Your task to perform on an android device: see creations saved in the google photos Image 0: 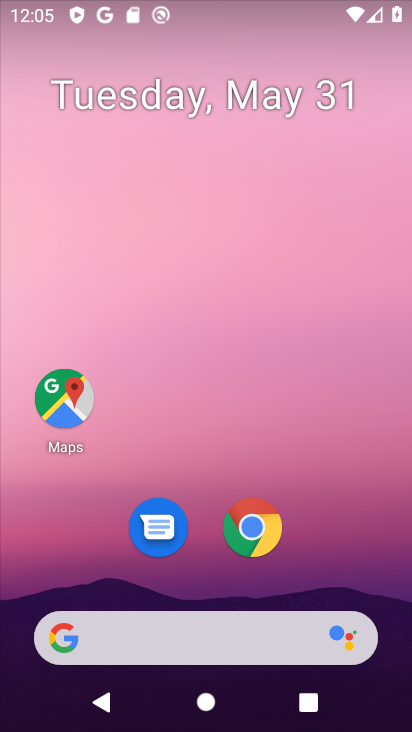
Step 0: click (209, 174)
Your task to perform on an android device: see creations saved in the google photos Image 1: 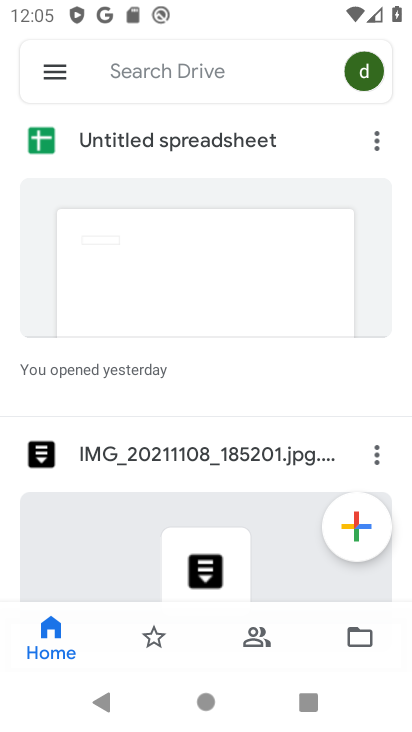
Step 1: press back button
Your task to perform on an android device: see creations saved in the google photos Image 2: 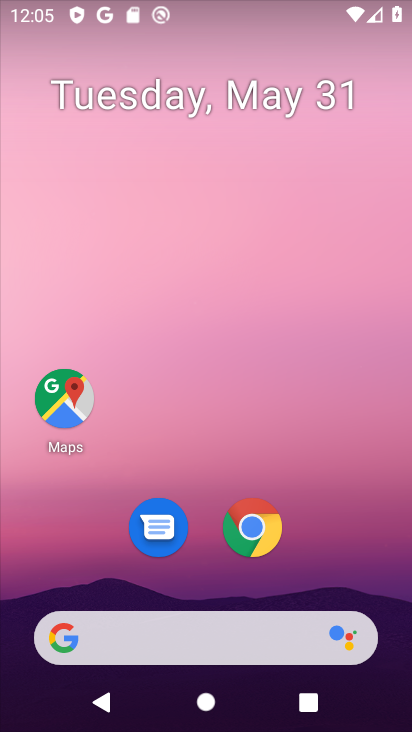
Step 2: drag from (222, 583) to (181, 135)
Your task to perform on an android device: see creations saved in the google photos Image 3: 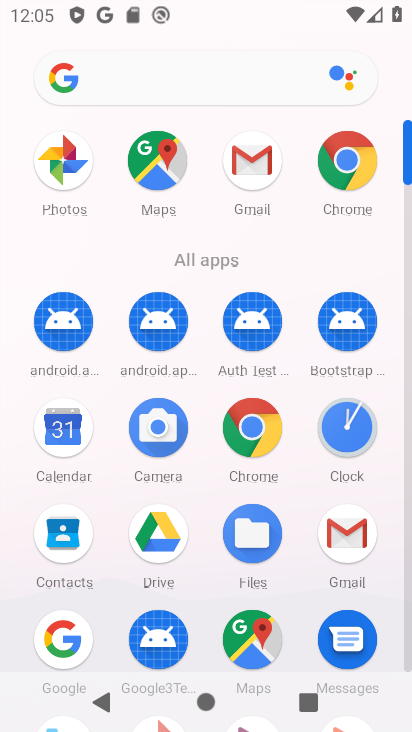
Step 3: click (66, 152)
Your task to perform on an android device: see creations saved in the google photos Image 4: 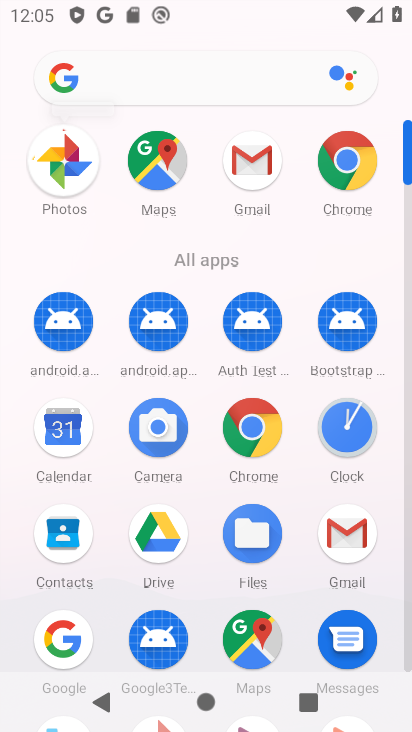
Step 4: click (63, 155)
Your task to perform on an android device: see creations saved in the google photos Image 5: 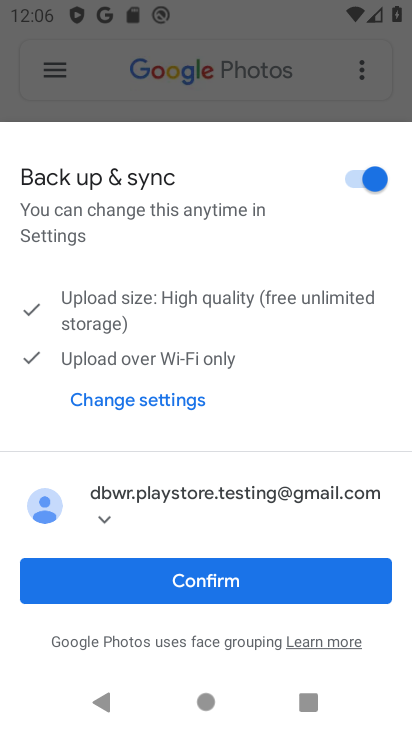
Step 5: click (228, 566)
Your task to perform on an android device: see creations saved in the google photos Image 6: 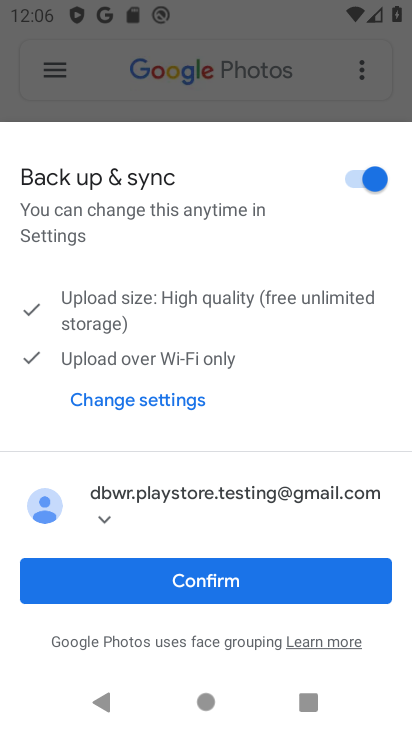
Step 6: click (226, 570)
Your task to perform on an android device: see creations saved in the google photos Image 7: 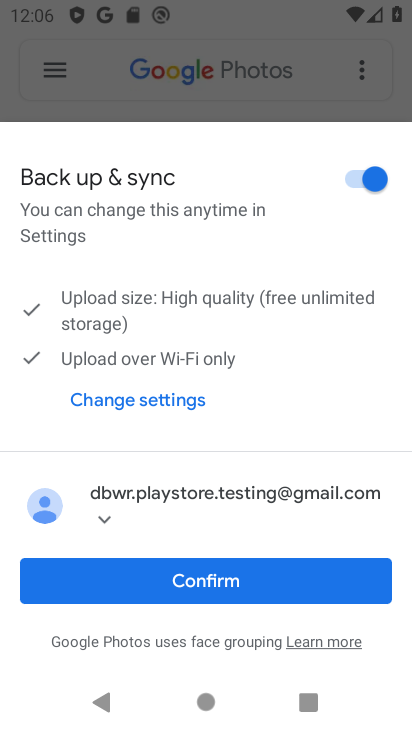
Step 7: click (226, 571)
Your task to perform on an android device: see creations saved in the google photos Image 8: 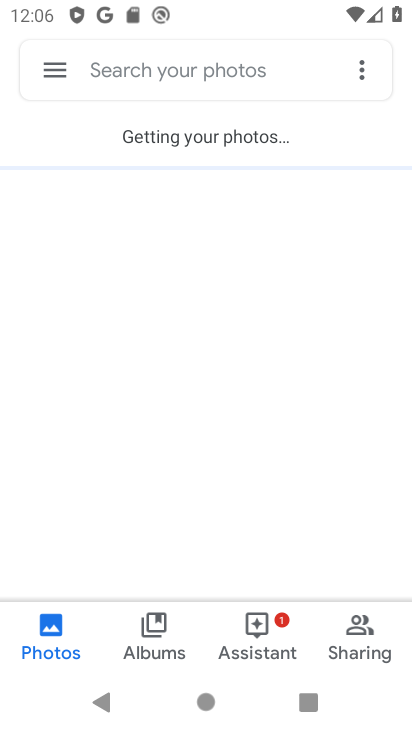
Step 8: task complete